Your task to perform on an android device: turn pop-ups on in chrome Image 0: 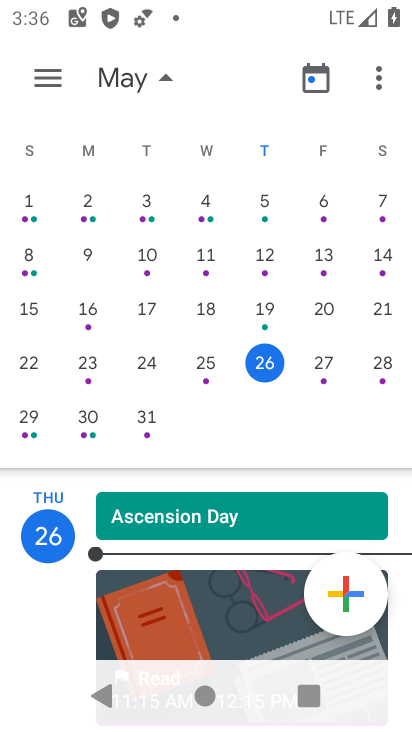
Step 0: press home button
Your task to perform on an android device: turn pop-ups on in chrome Image 1: 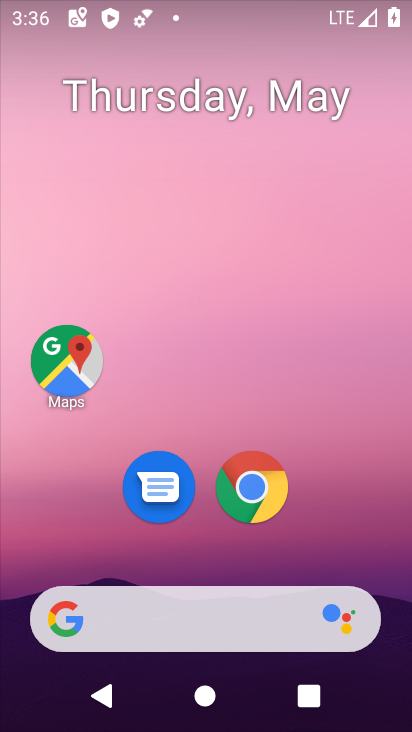
Step 1: drag from (258, 535) to (306, 0)
Your task to perform on an android device: turn pop-ups on in chrome Image 2: 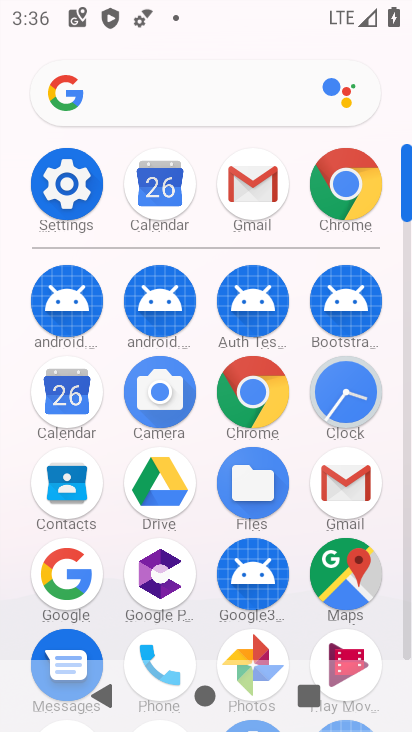
Step 2: click (365, 191)
Your task to perform on an android device: turn pop-ups on in chrome Image 3: 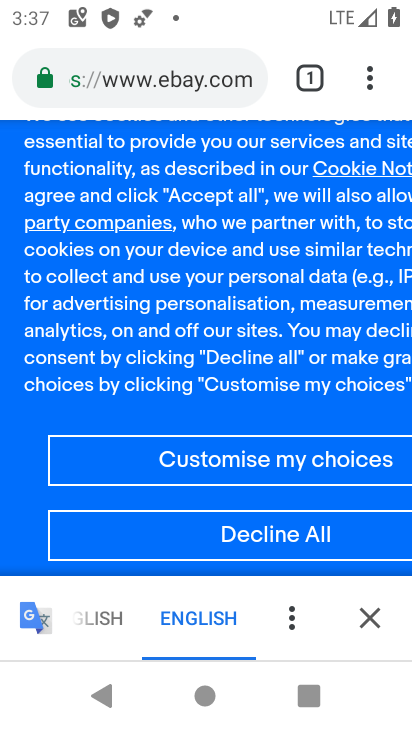
Step 3: click (375, 86)
Your task to perform on an android device: turn pop-ups on in chrome Image 4: 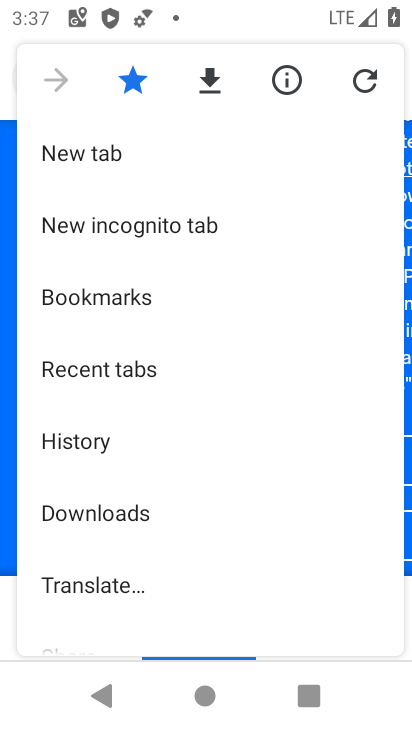
Step 4: drag from (145, 478) to (213, 150)
Your task to perform on an android device: turn pop-ups on in chrome Image 5: 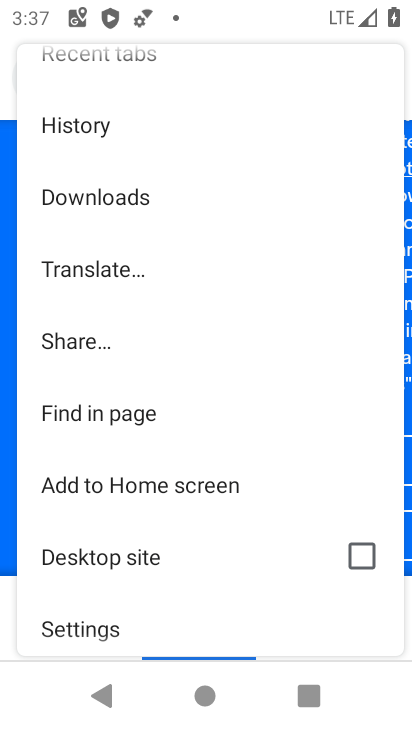
Step 5: drag from (132, 519) to (217, 127)
Your task to perform on an android device: turn pop-ups on in chrome Image 6: 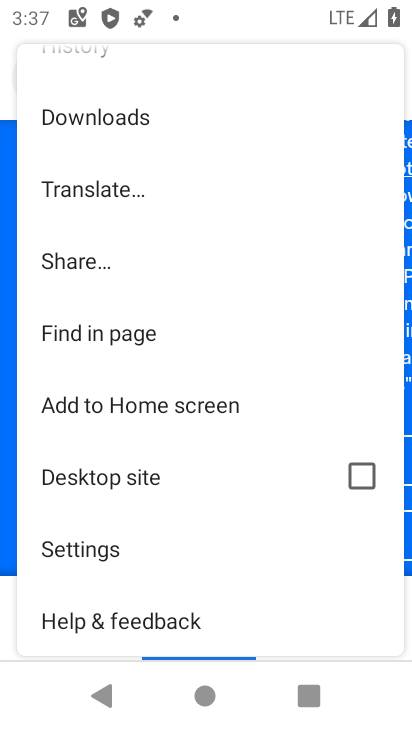
Step 6: click (124, 545)
Your task to perform on an android device: turn pop-ups on in chrome Image 7: 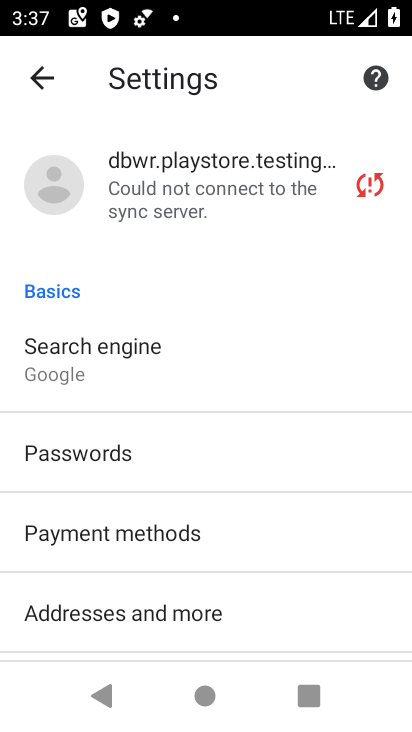
Step 7: drag from (159, 516) to (253, 170)
Your task to perform on an android device: turn pop-ups on in chrome Image 8: 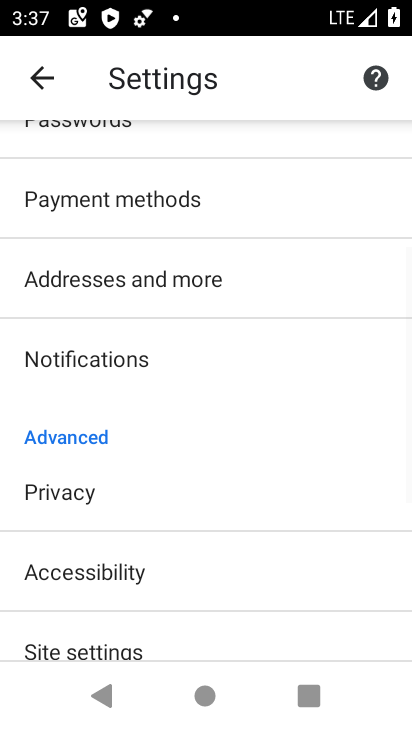
Step 8: drag from (177, 482) to (205, 265)
Your task to perform on an android device: turn pop-ups on in chrome Image 9: 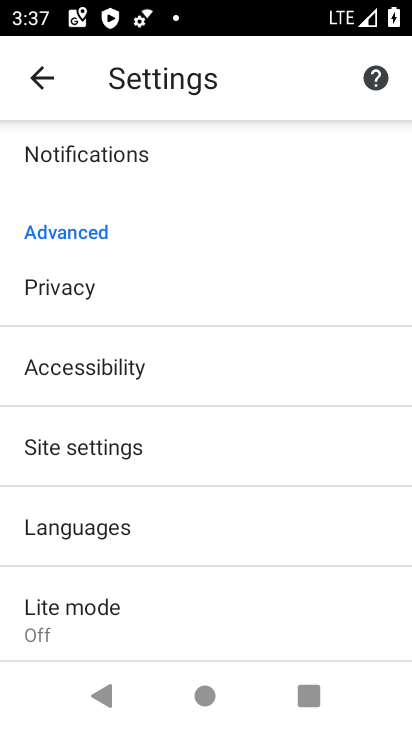
Step 9: click (126, 448)
Your task to perform on an android device: turn pop-ups on in chrome Image 10: 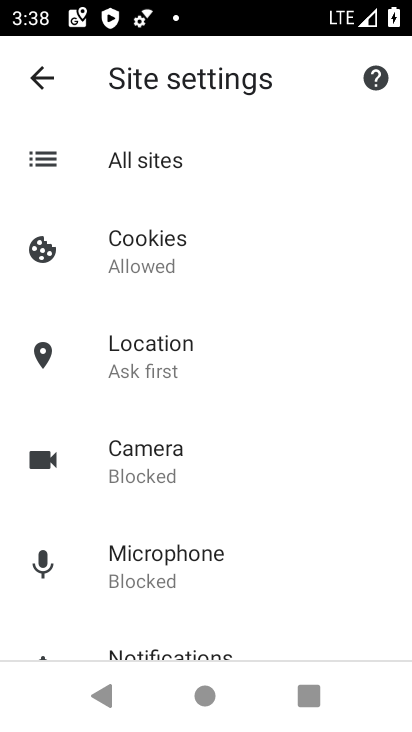
Step 10: drag from (216, 470) to (219, 248)
Your task to perform on an android device: turn pop-ups on in chrome Image 11: 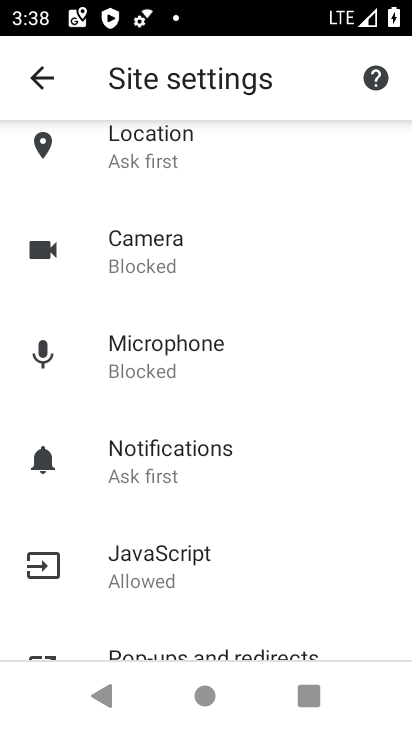
Step 11: drag from (177, 525) to (241, 202)
Your task to perform on an android device: turn pop-ups on in chrome Image 12: 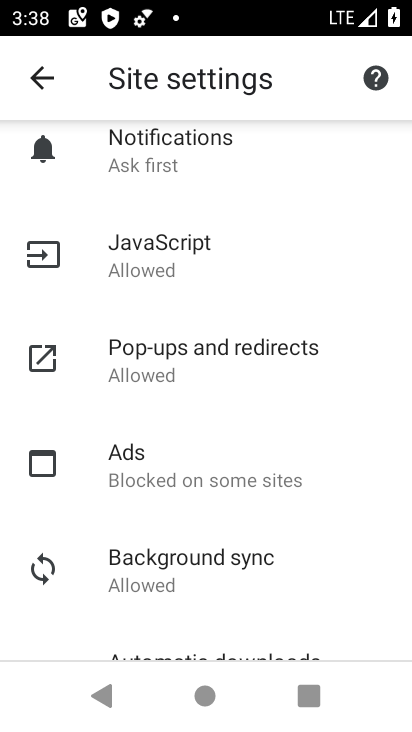
Step 12: drag from (179, 530) to (219, 200)
Your task to perform on an android device: turn pop-ups on in chrome Image 13: 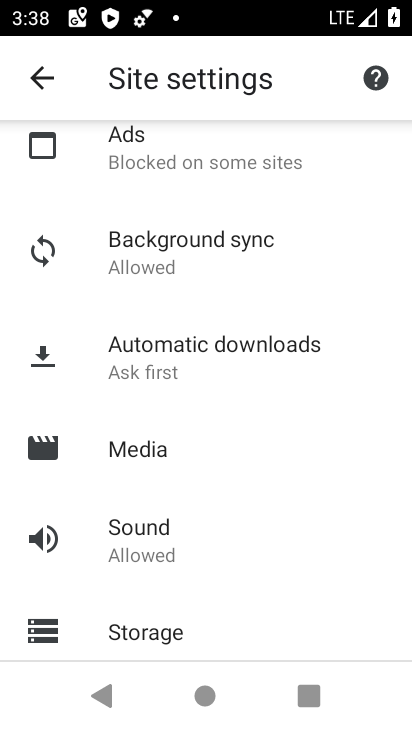
Step 13: drag from (242, 451) to (242, 673)
Your task to perform on an android device: turn pop-ups on in chrome Image 14: 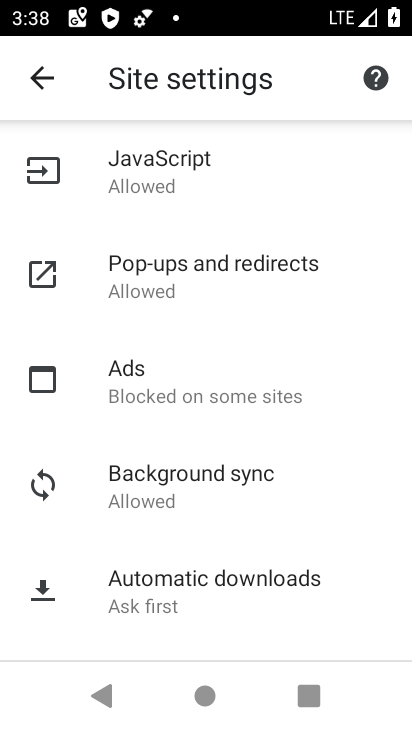
Step 14: click (265, 296)
Your task to perform on an android device: turn pop-ups on in chrome Image 15: 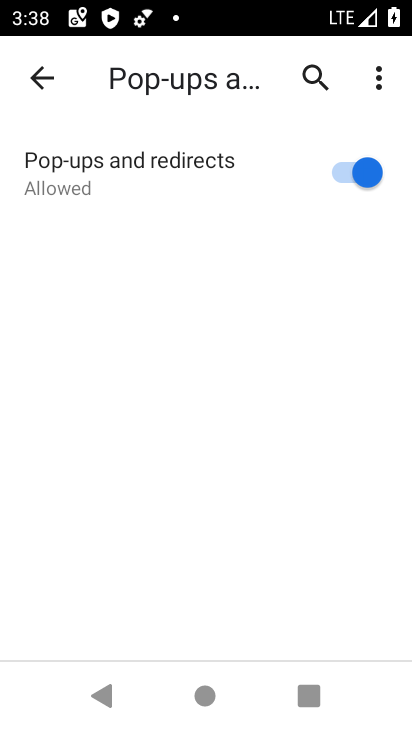
Step 15: task complete